Your task to perform on an android device: When is my next appointment? Image 0: 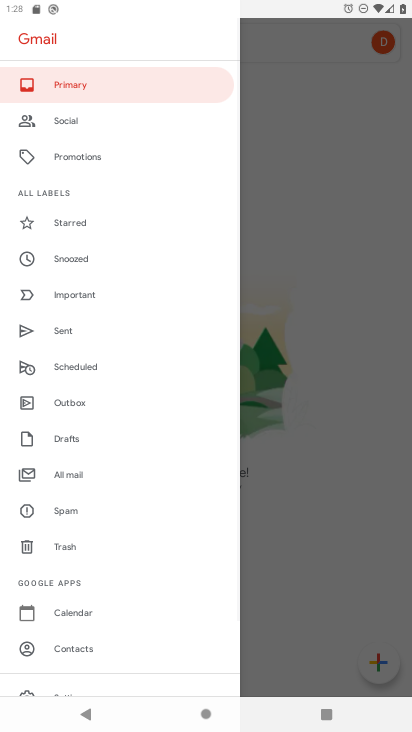
Step 0: press home button
Your task to perform on an android device: When is my next appointment? Image 1: 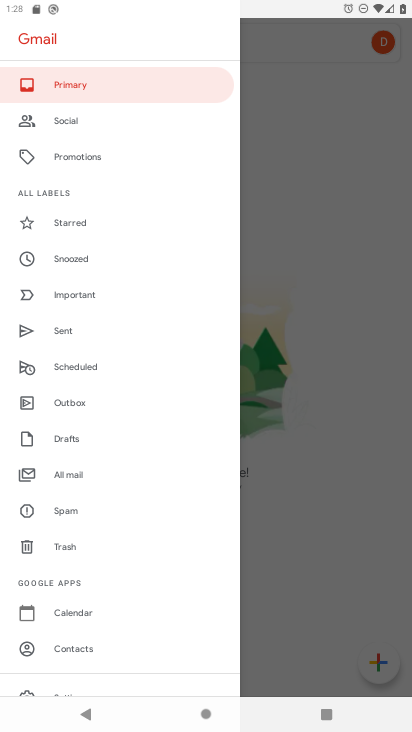
Step 1: press home button
Your task to perform on an android device: When is my next appointment? Image 2: 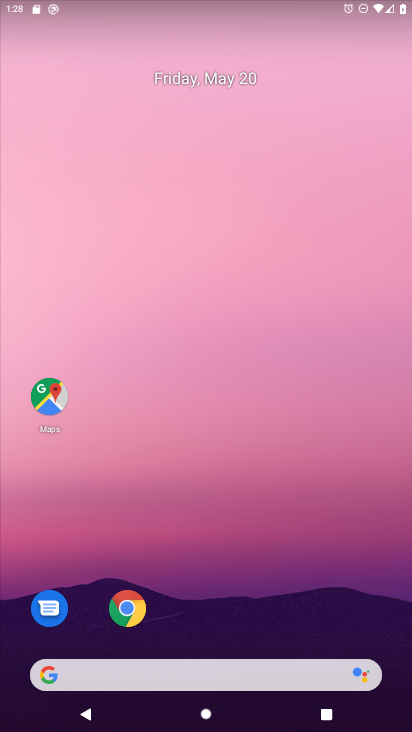
Step 2: drag from (297, 478) to (292, 40)
Your task to perform on an android device: When is my next appointment? Image 3: 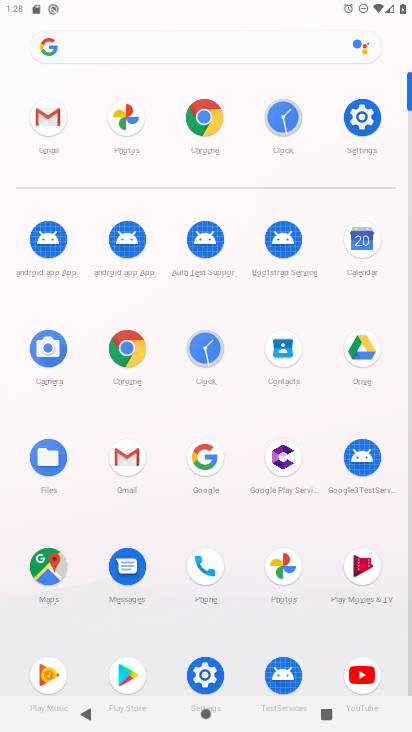
Step 3: click (363, 234)
Your task to perform on an android device: When is my next appointment? Image 4: 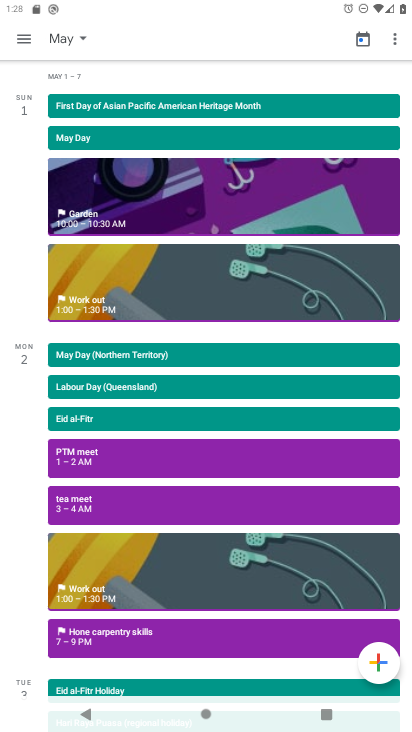
Step 4: click (76, 26)
Your task to perform on an android device: When is my next appointment? Image 5: 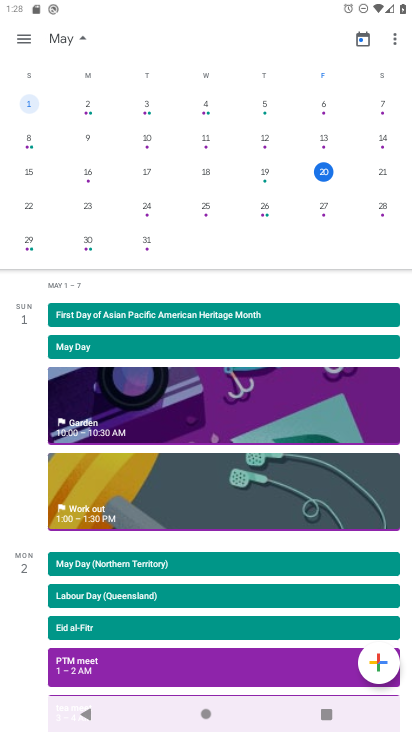
Step 5: click (72, 43)
Your task to perform on an android device: When is my next appointment? Image 6: 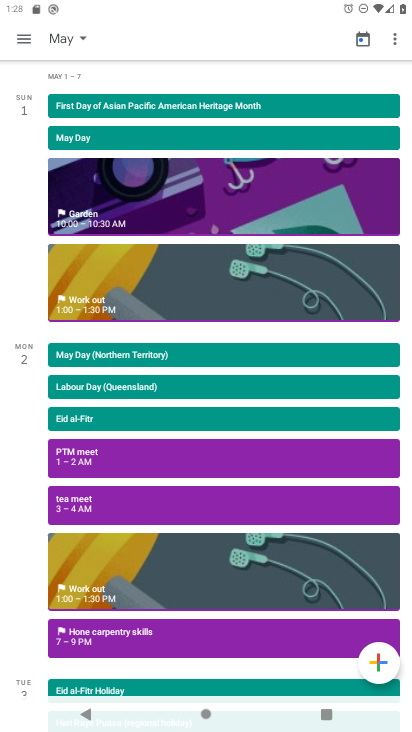
Step 6: task complete